Your task to perform on an android device: Open Google Maps and go to "Timeline" Image 0: 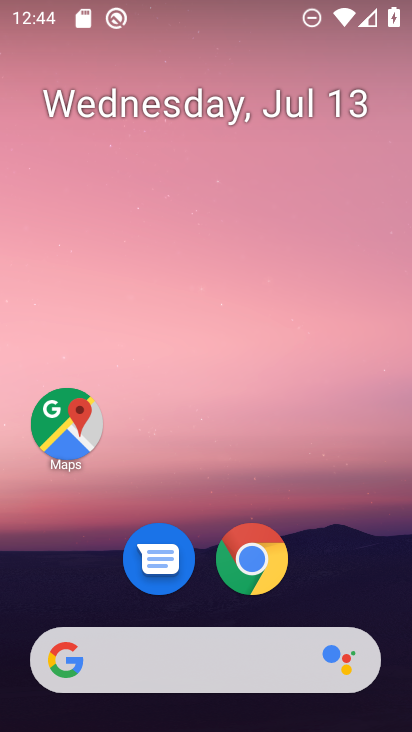
Step 0: drag from (166, 620) to (240, 212)
Your task to perform on an android device: Open Google Maps and go to "Timeline" Image 1: 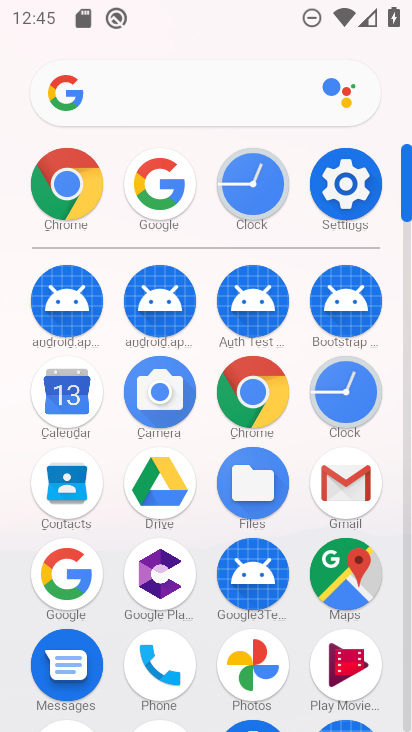
Step 1: click (365, 560)
Your task to perform on an android device: Open Google Maps and go to "Timeline" Image 2: 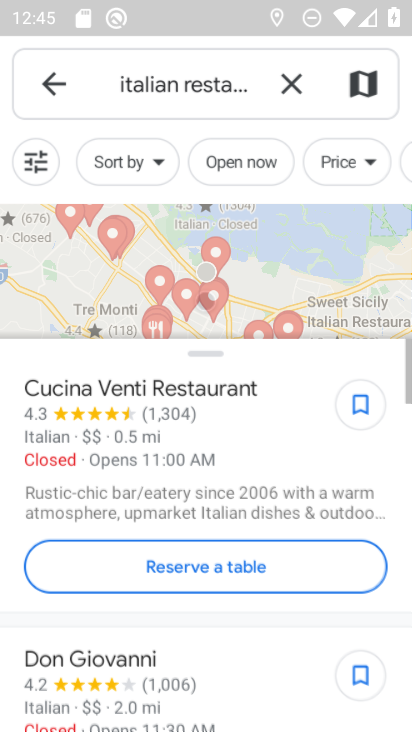
Step 2: click (62, 84)
Your task to perform on an android device: Open Google Maps and go to "Timeline" Image 3: 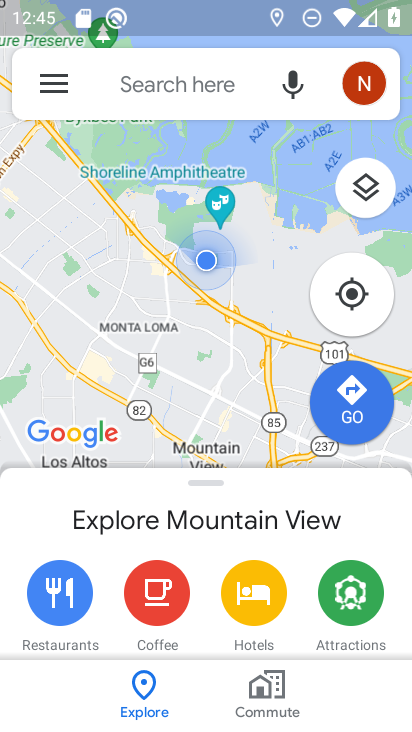
Step 3: click (56, 89)
Your task to perform on an android device: Open Google Maps and go to "Timeline" Image 4: 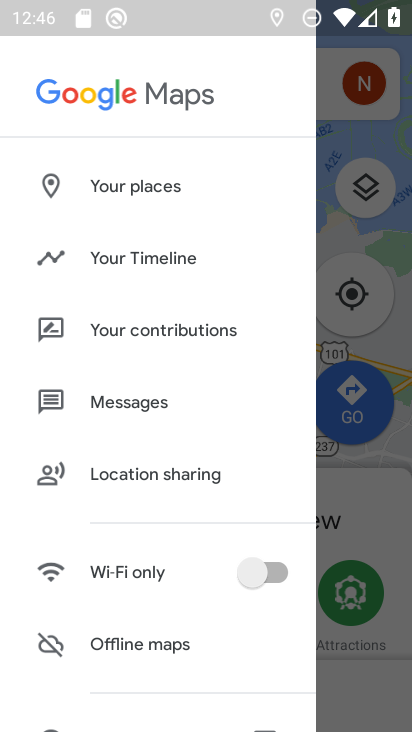
Step 4: click (163, 251)
Your task to perform on an android device: Open Google Maps and go to "Timeline" Image 5: 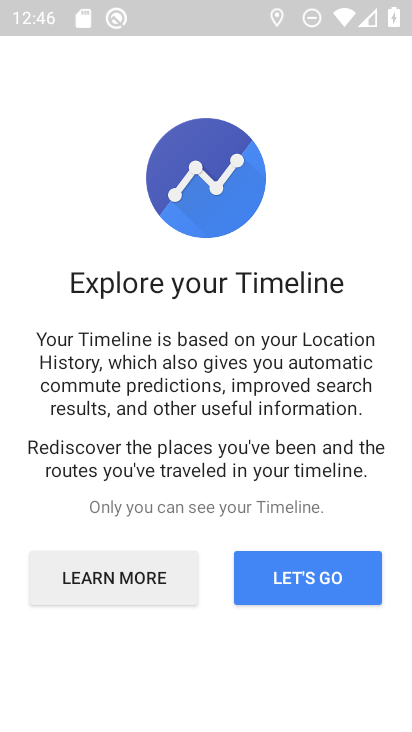
Step 5: click (291, 585)
Your task to perform on an android device: Open Google Maps and go to "Timeline" Image 6: 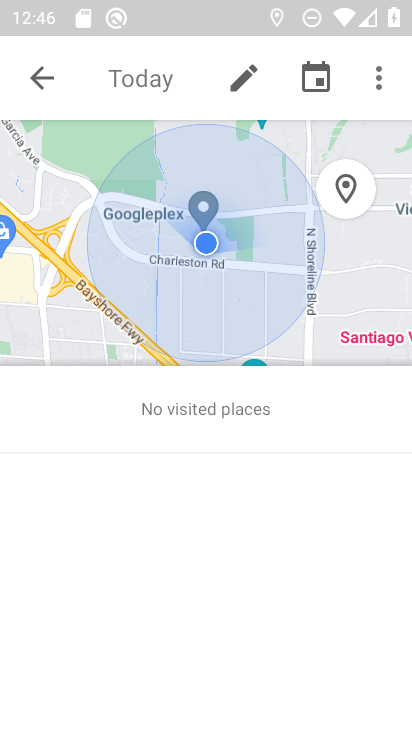
Step 6: task complete